Your task to perform on an android device: Show me the alarms in the clock app Image 0: 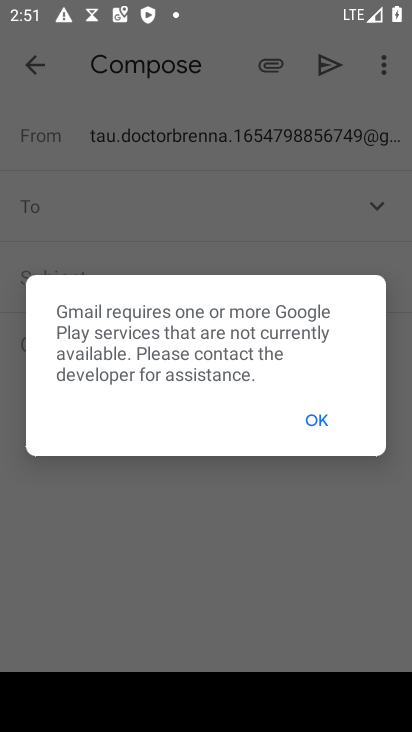
Step 0: click (313, 408)
Your task to perform on an android device: Show me the alarms in the clock app Image 1: 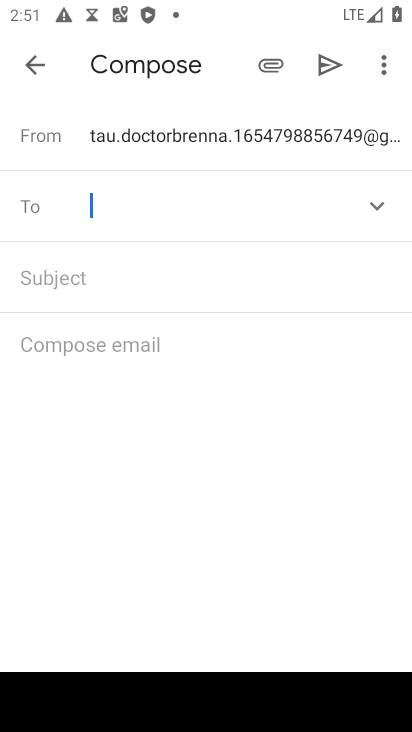
Step 1: press back button
Your task to perform on an android device: Show me the alarms in the clock app Image 2: 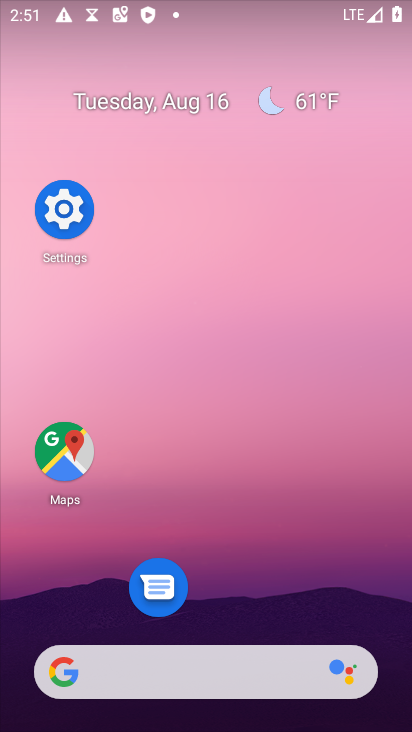
Step 2: drag from (248, 603) to (297, 3)
Your task to perform on an android device: Show me the alarms in the clock app Image 3: 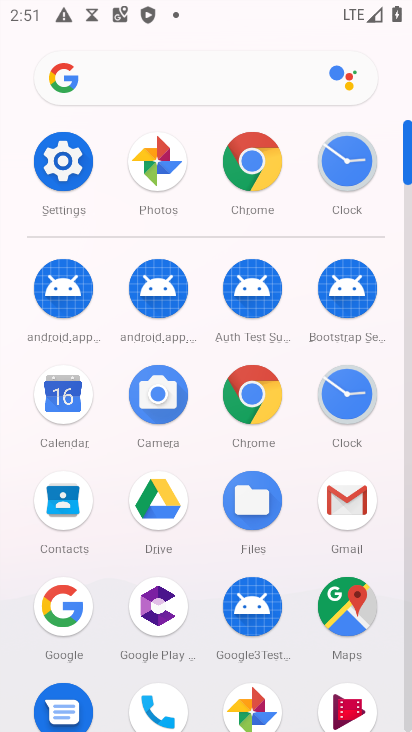
Step 3: click (360, 161)
Your task to perform on an android device: Show me the alarms in the clock app Image 4: 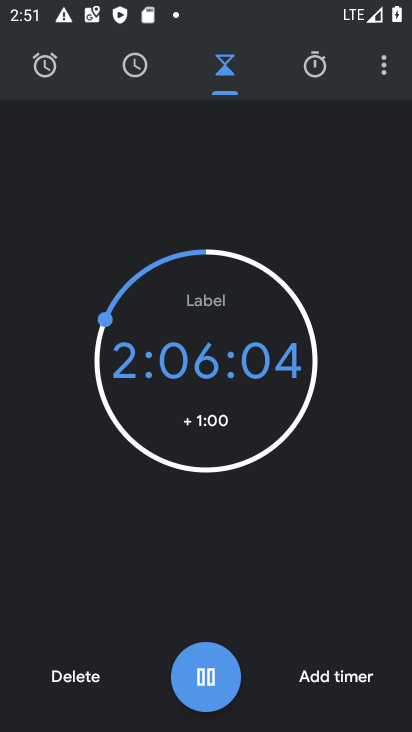
Step 4: click (61, 55)
Your task to perform on an android device: Show me the alarms in the clock app Image 5: 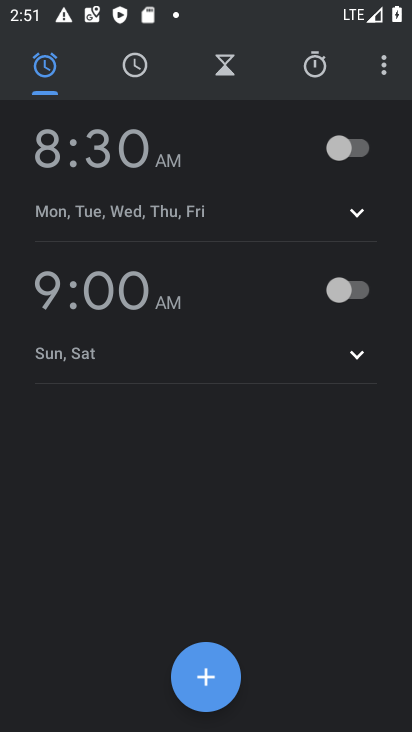
Step 5: task complete